Your task to perform on an android device: allow notifications from all sites in the chrome app Image 0: 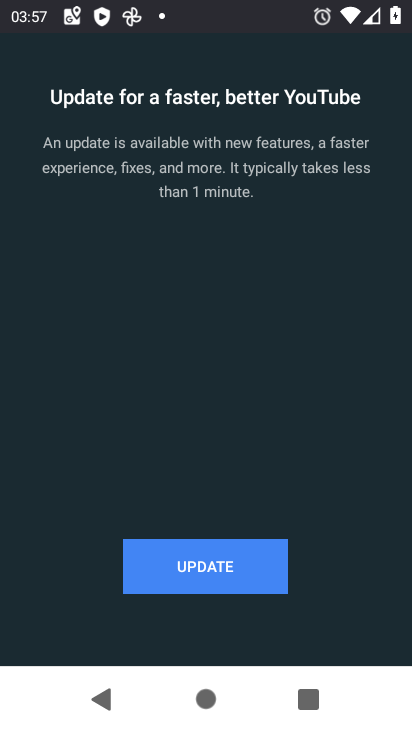
Step 0: press home button
Your task to perform on an android device: allow notifications from all sites in the chrome app Image 1: 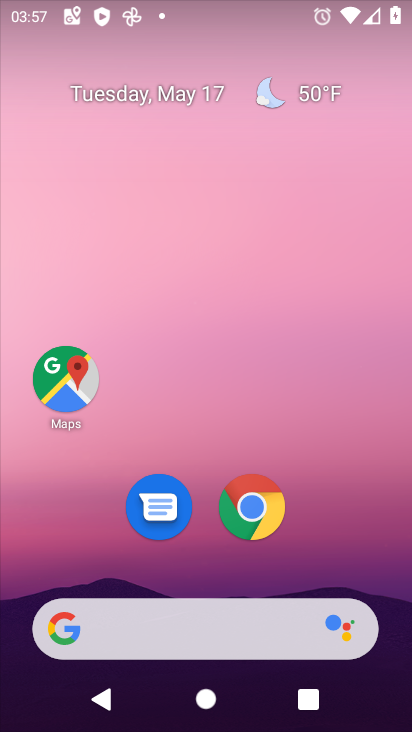
Step 1: click (260, 504)
Your task to perform on an android device: allow notifications from all sites in the chrome app Image 2: 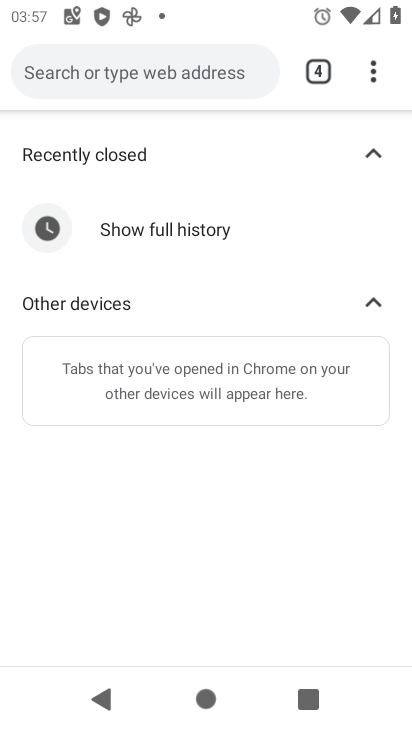
Step 2: click (382, 59)
Your task to perform on an android device: allow notifications from all sites in the chrome app Image 3: 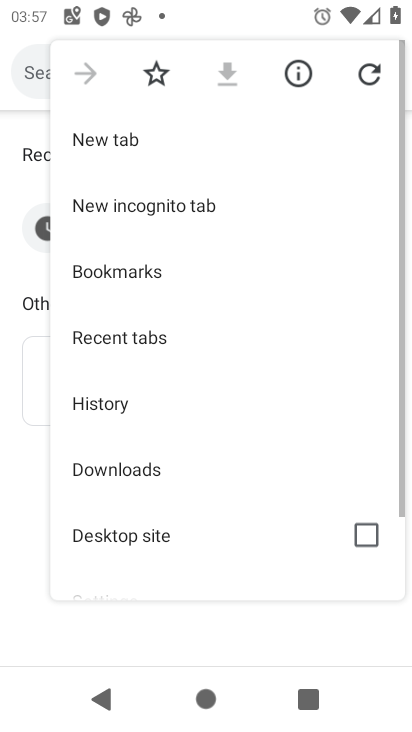
Step 3: drag from (251, 487) to (270, 133)
Your task to perform on an android device: allow notifications from all sites in the chrome app Image 4: 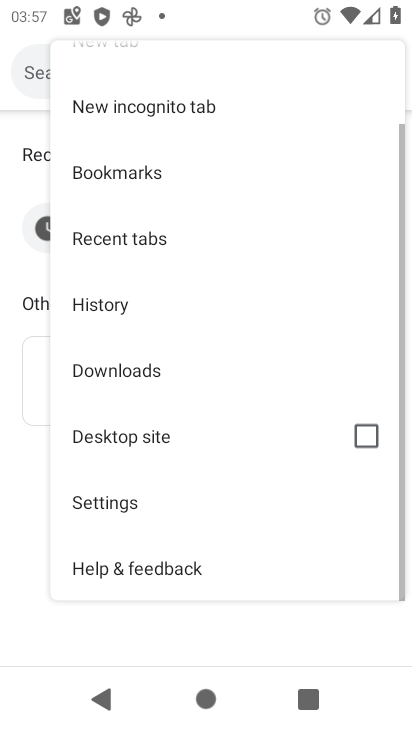
Step 4: click (151, 493)
Your task to perform on an android device: allow notifications from all sites in the chrome app Image 5: 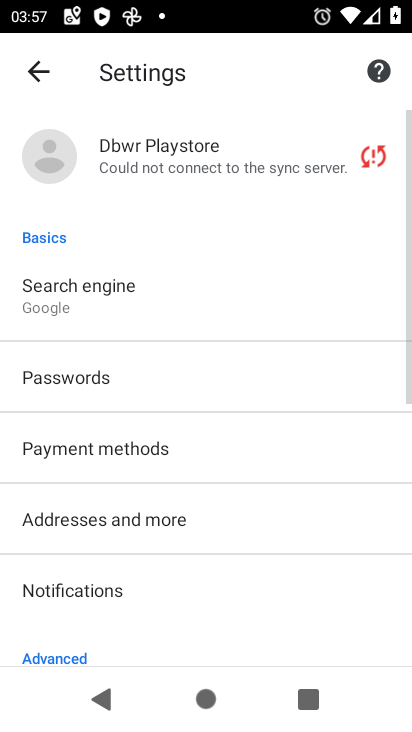
Step 5: drag from (221, 554) to (220, 199)
Your task to perform on an android device: allow notifications from all sites in the chrome app Image 6: 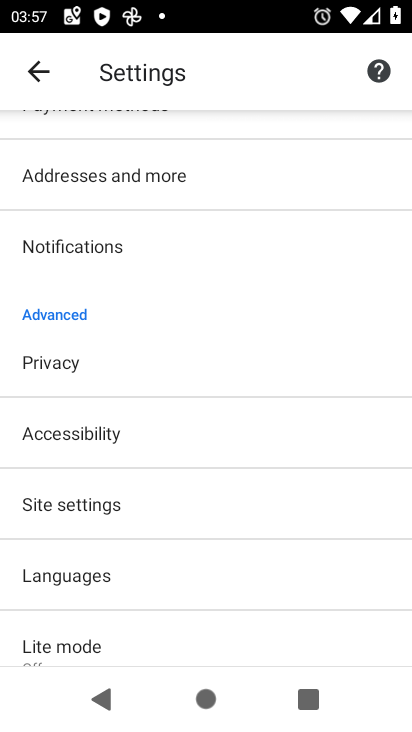
Step 6: click (127, 495)
Your task to perform on an android device: allow notifications from all sites in the chrome app Image 7: 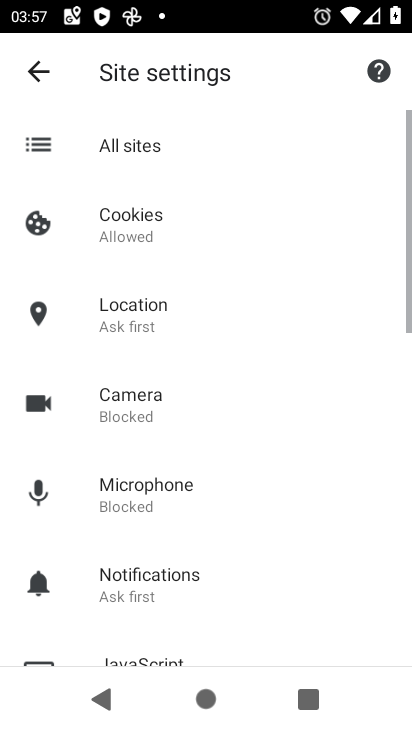
Step 7: click (160, 143)
Your task to perform on an android device: allow notifications from all sites in the chrome app Image 8: 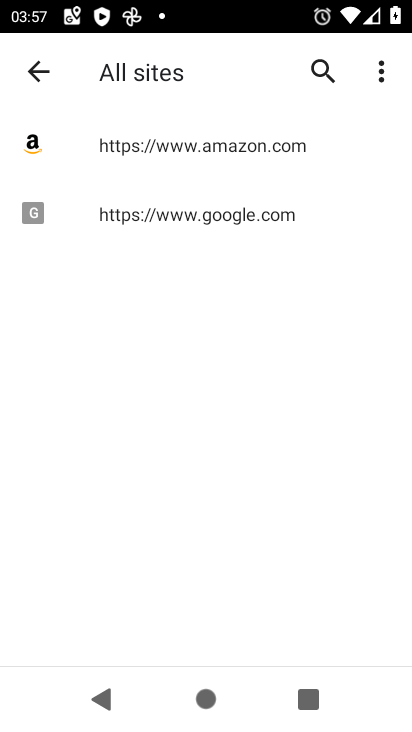
Step 8: click (209, 147)
Your task to perform on an android device: allow notifications from all sites in the chrome app Image 9: 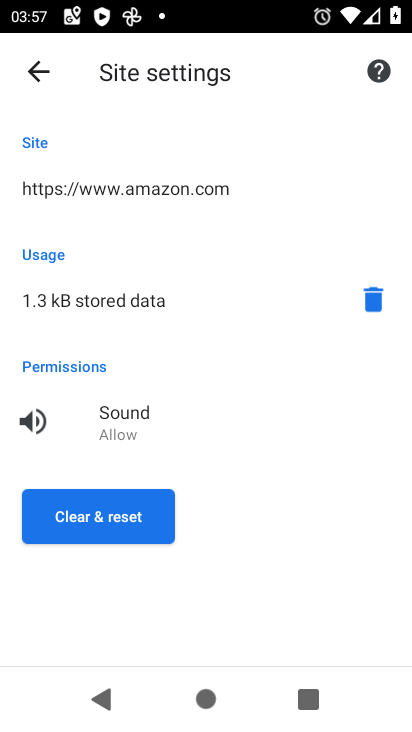
Step 9: task complete